Your task to perform on an android device: Search for "alienware aurora" on costco.com, select the first entry, add it to the cart, then select checkout. Image 0: 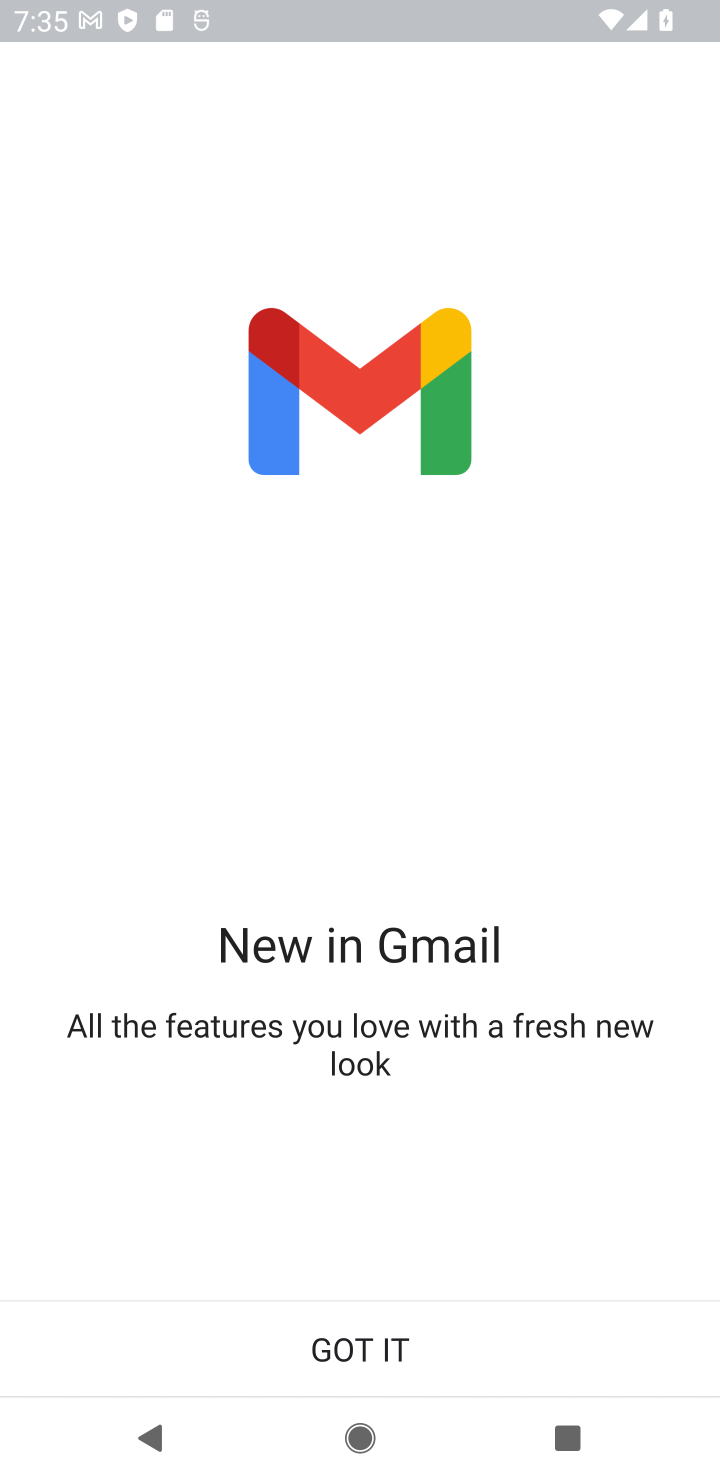
Step 0: press home button
Your task to perform on an android device: Search for "alienware aurora" on costco.com, select the first entry, add it to the cart, then select checkout. Image 1: 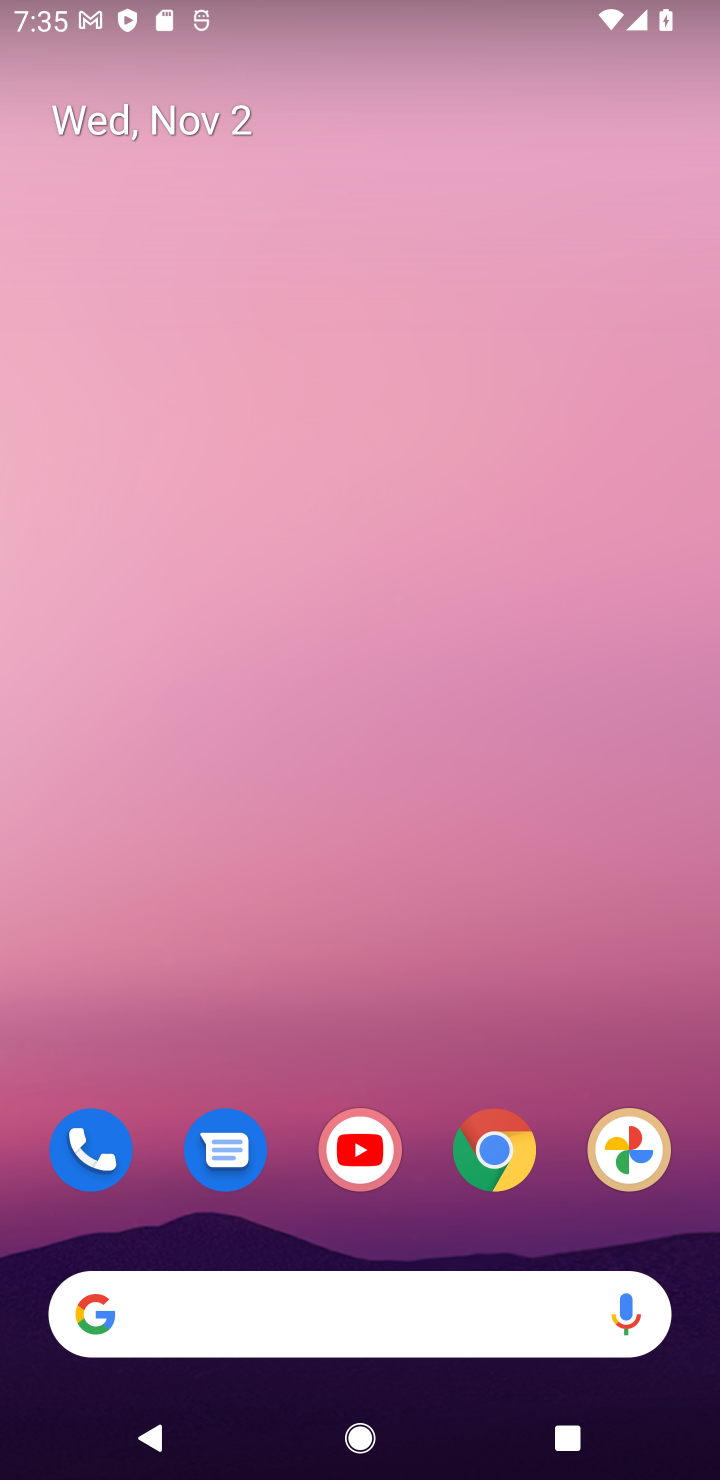
Step 1: click (505, 1147)
Your task to perform on an android device: Search for "alienware aurora" on costco.com, select the first entry, add it to the cart, then select checkout. Image 2: 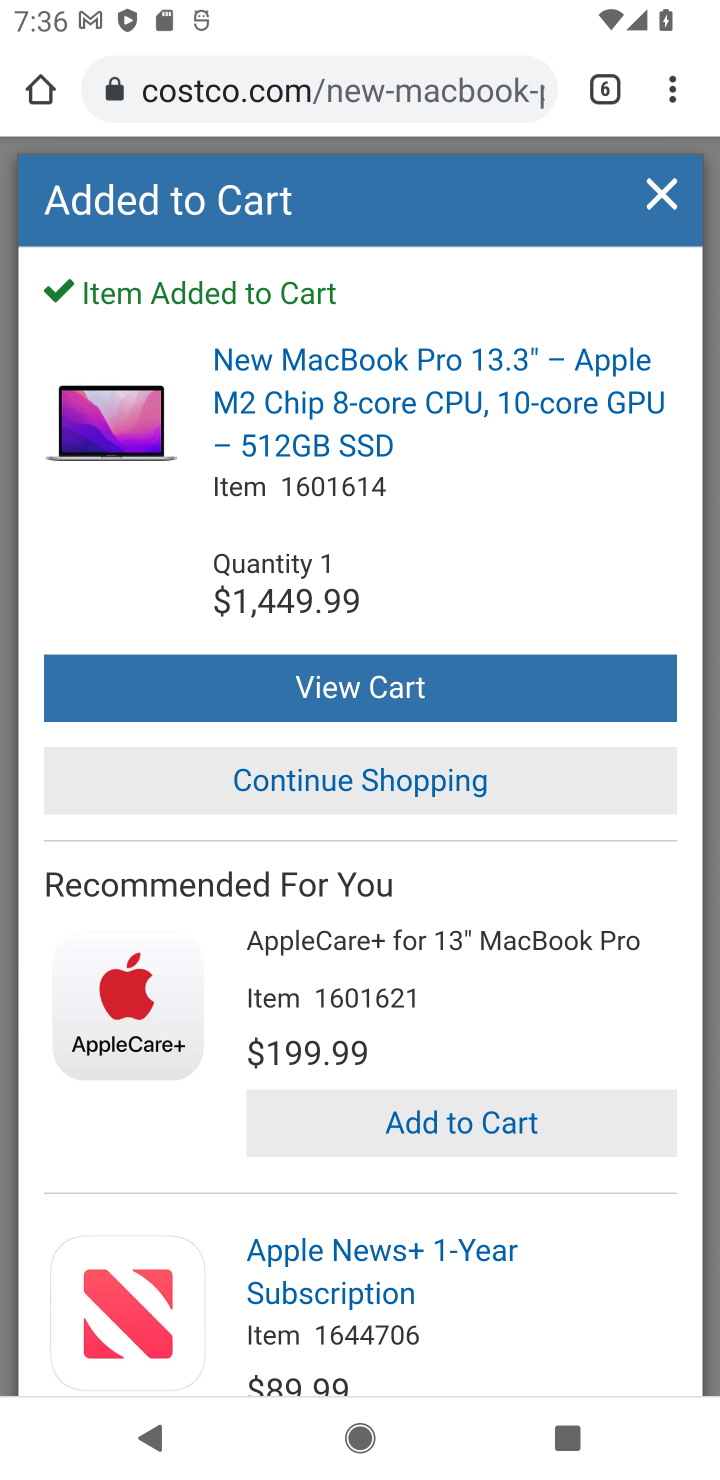
Step 2: click (657, 192)
Your task to perform on an android device: Search for "alienware aurora" on costco.com, select the first entry, add it to the cart, then select checkout. Image 3: 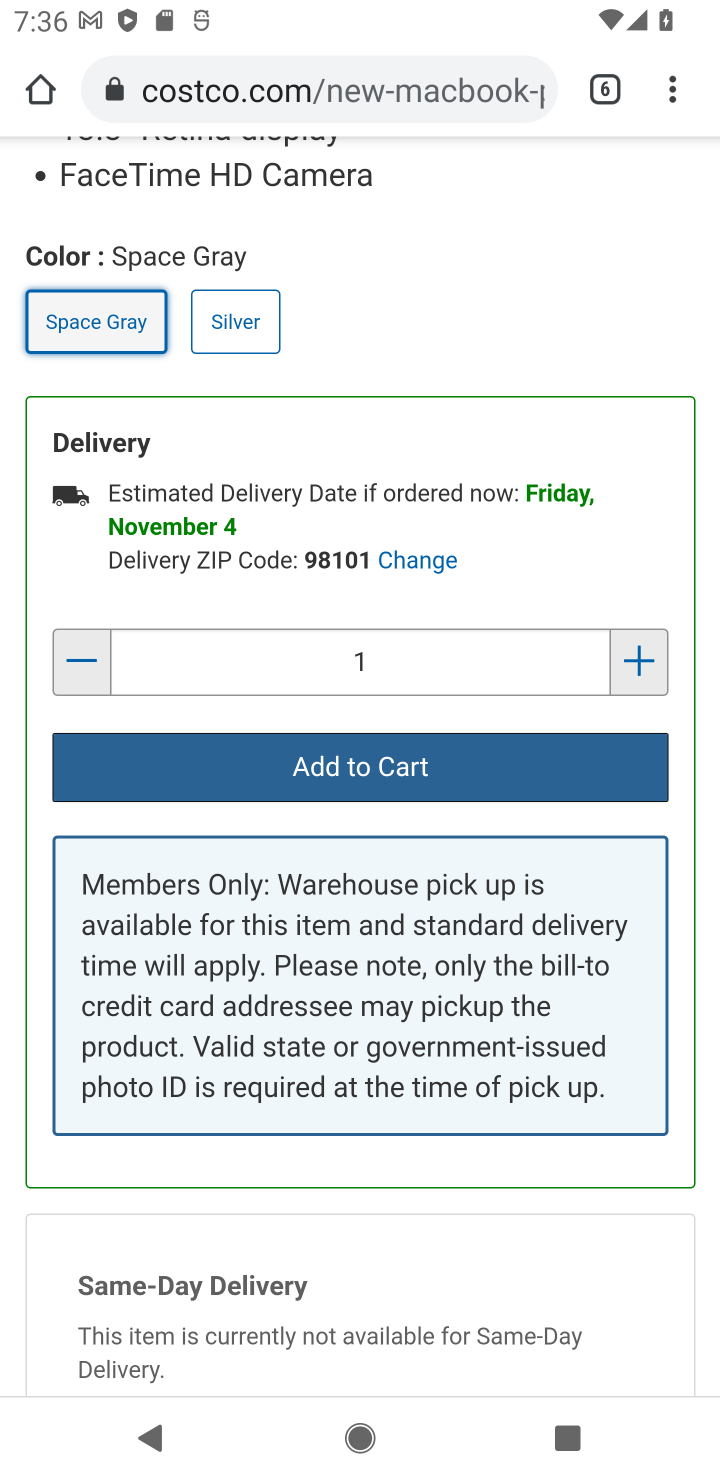
Step 3: drag from (405, 279) to (278, 1373)
Your task to perform on an android device: Search for "alienware aurora" on costco.com, select the first entry, add it to the cart, then select checkout. Image 4: 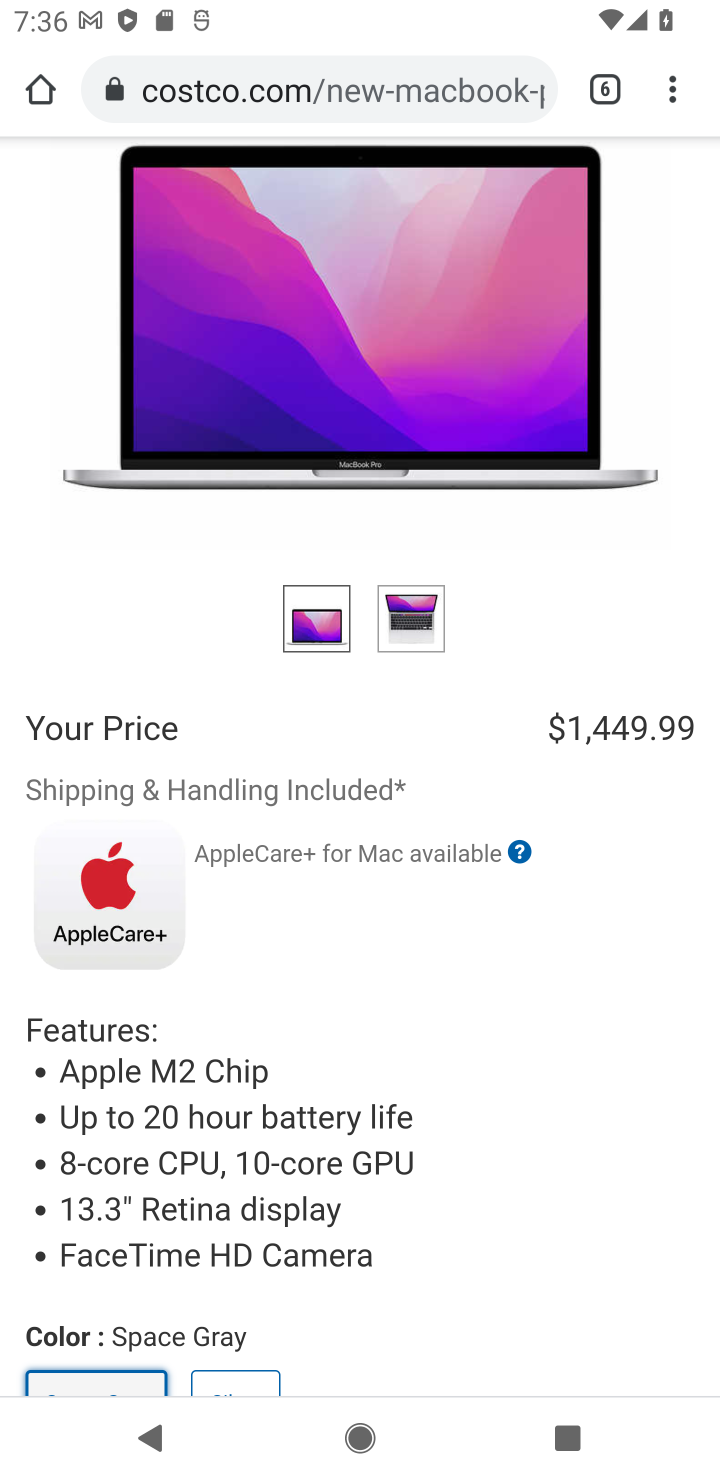
Step 4: drag from (646, 264) to (592, 1473)
Your task to perform on an android device: Search for "alienware aurora" on costco.com, select the first entry, add it to the cart, then select checkout. Image 5: 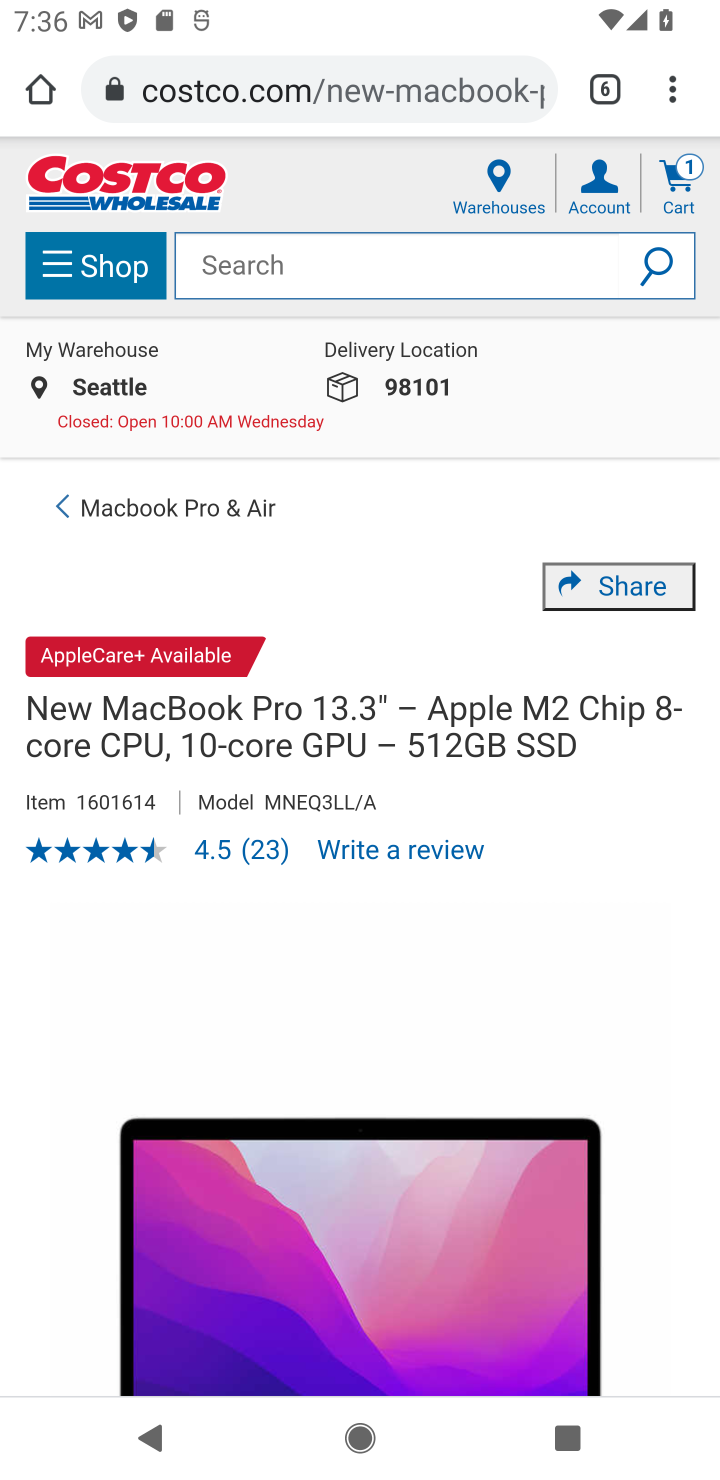
Step 5: click (330, 263)
Your task to perform on an android device: Search for "alienware aurora" on costco.com, select the first entry, add it to the cart, then select checkout. Image 6: 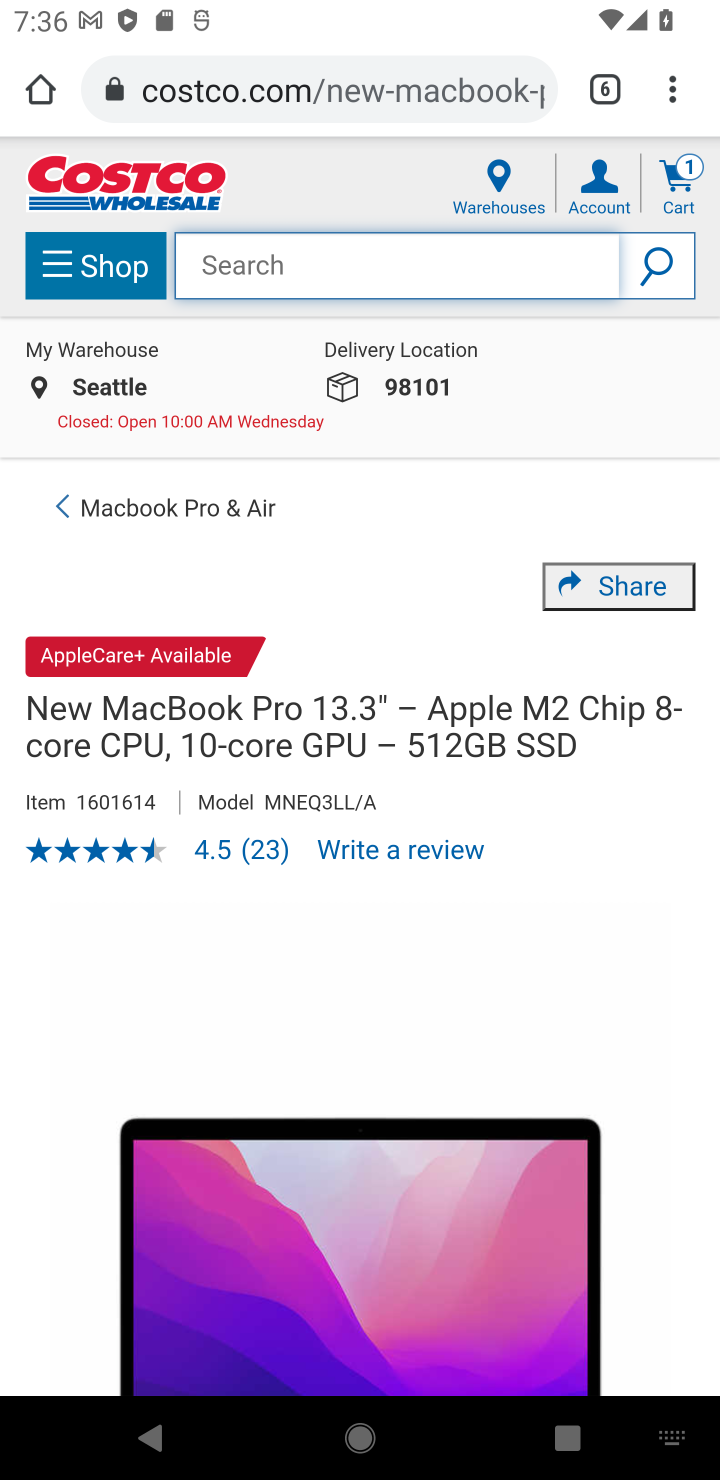
Step 6: type "alienware aurora"
Your task to perform on an android device: Search for "alienware aurora" on costco.com, select the first entry, add it to the cart, then select checkout. Image 7: 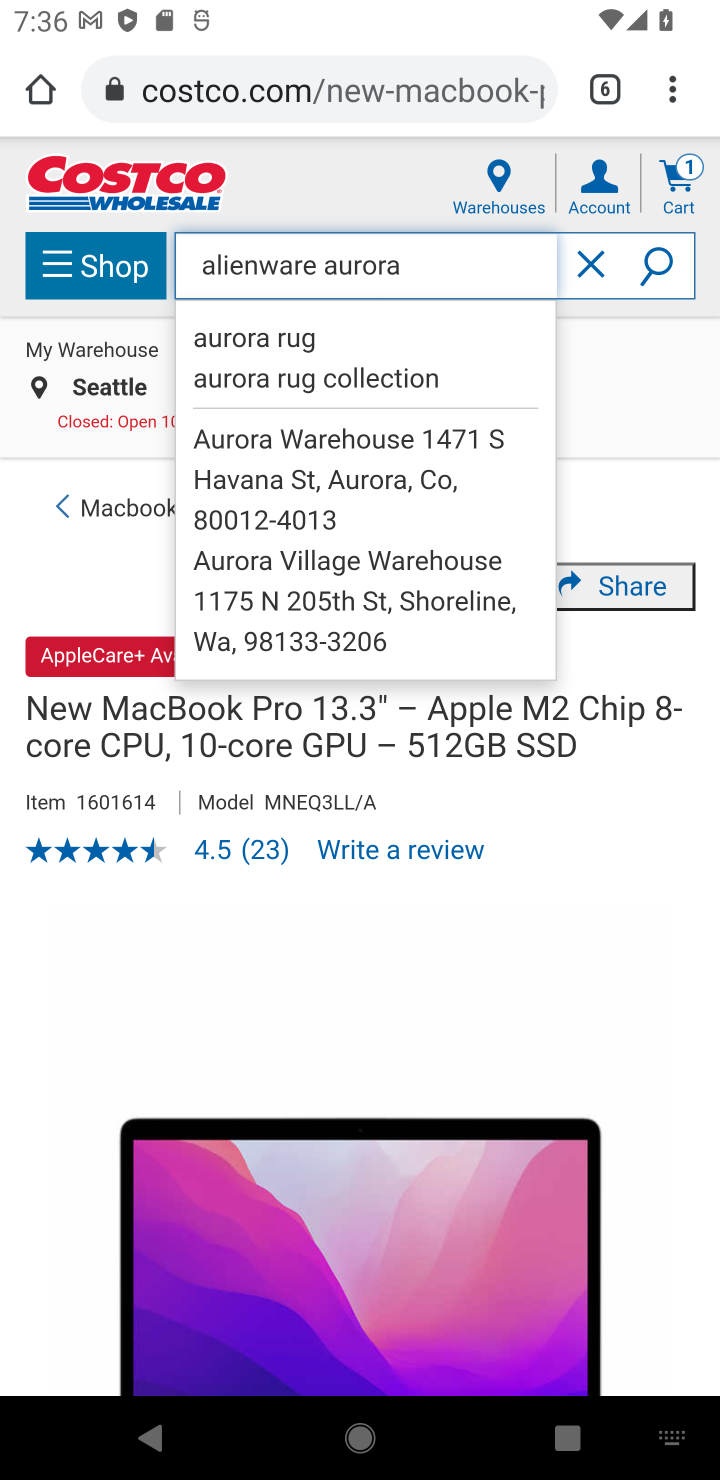
Step 7: click (655, 265)
Your task to perform on an android device: Search for "alienware aurora" on costco.com, select the first entry, add it to the cart, then select checkout. Image 8: 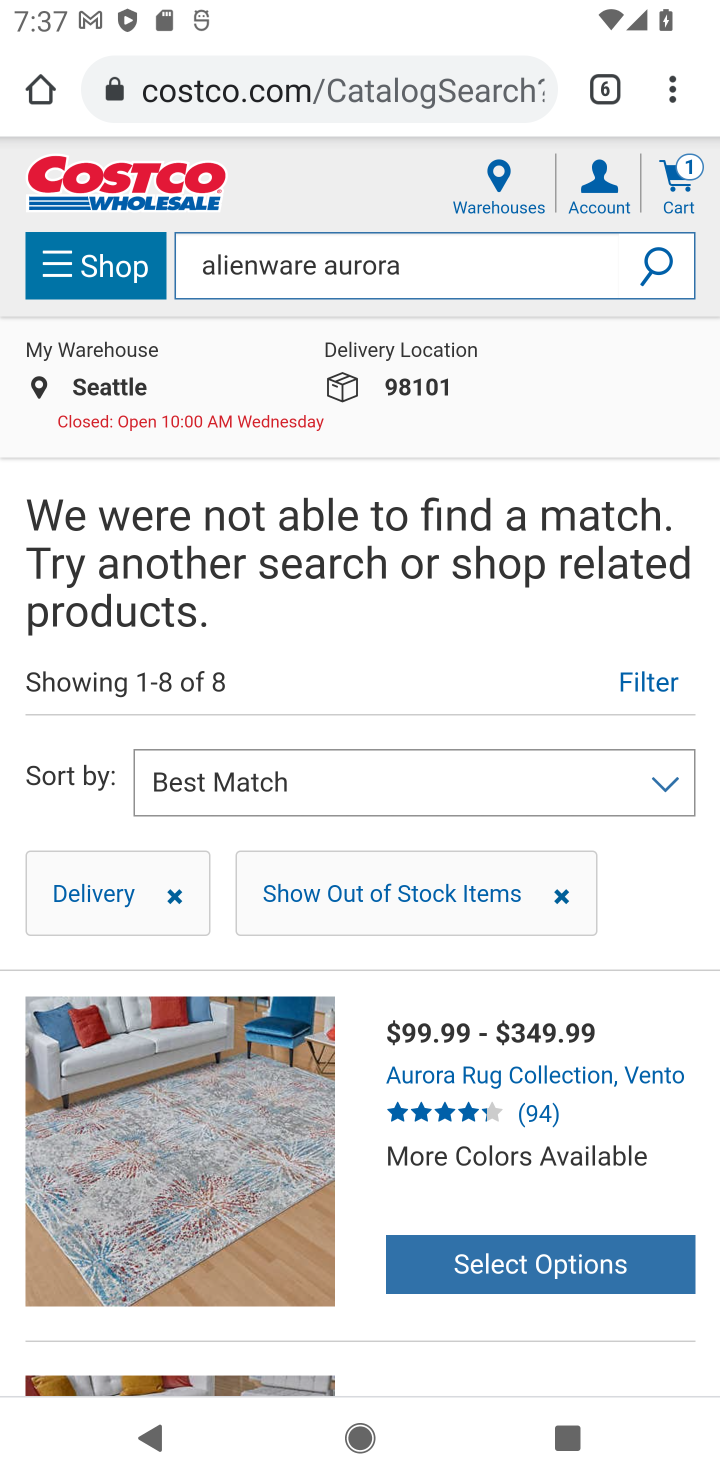
Step 8: click (534, 1164)
Your task to perform on an android device: Search for "alienware aurora" on costco.com, select the first entry, add it to the cart, then select checkout. Image 9: 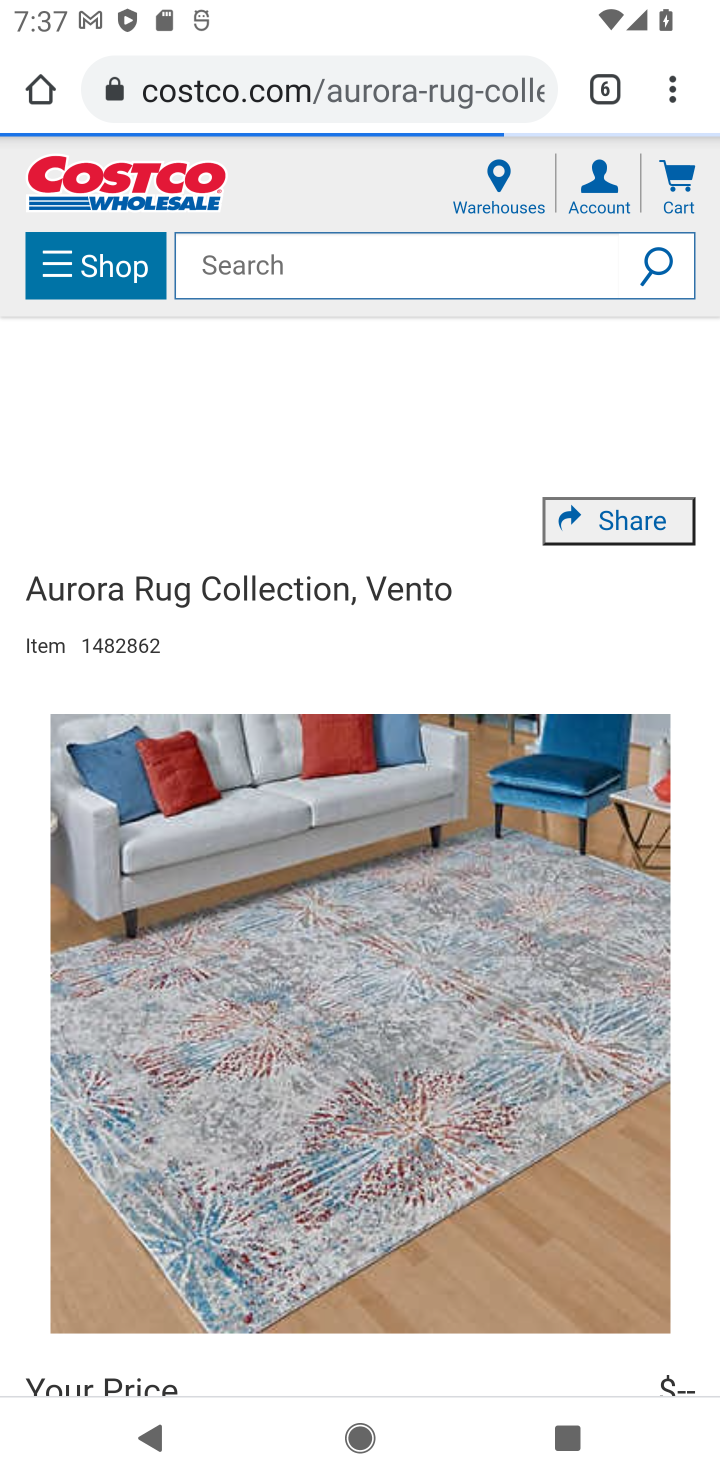
Step 9: click (537, 742)
Your task to perform on an android device: Search for "alienware aurora" on costco.com, select the first entry, add it to the cart, then select checkout. Image 10: 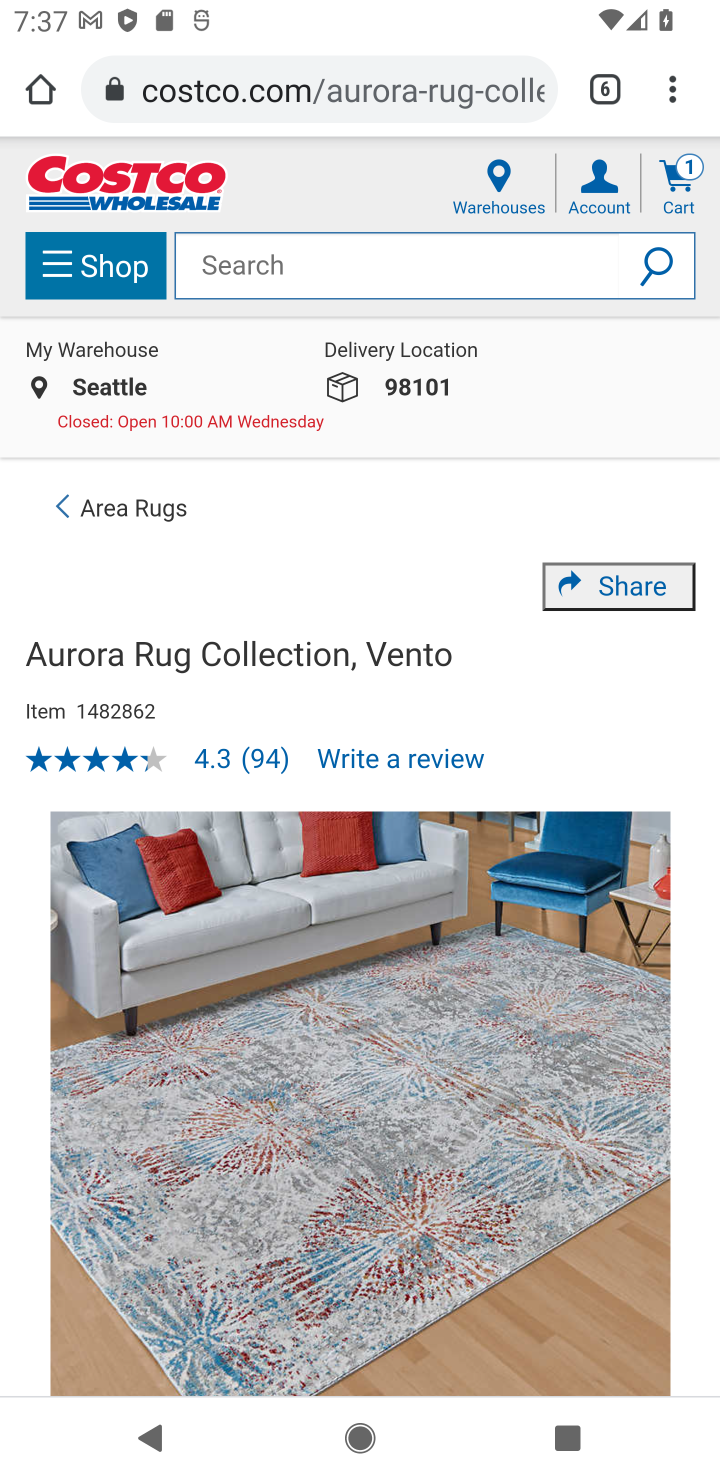
Step 10: drag from (280, 1426) to (253, 169)
Your task to perform on an android device: Search for "alienware aurora" on costco.com, select the first entry, add it to the cart, then select checkout. Image 11: 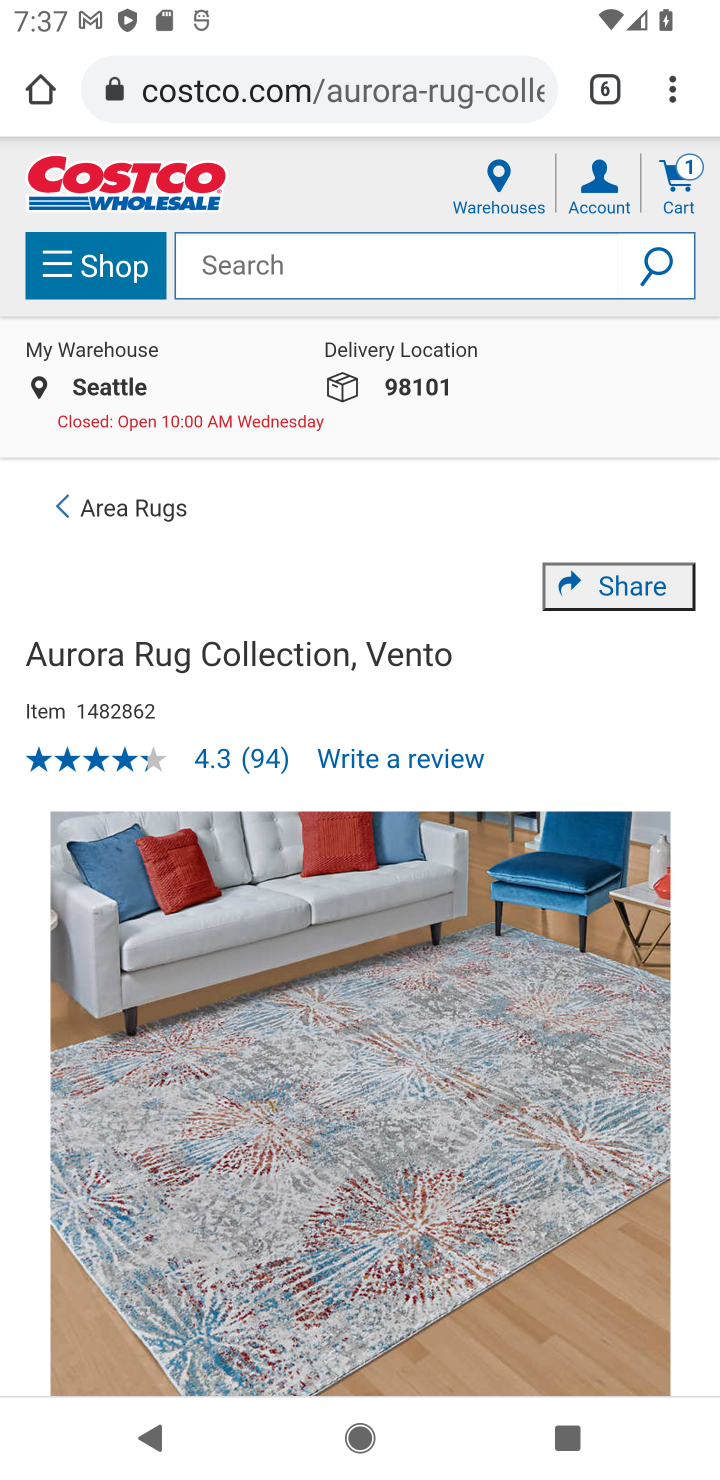
Step 11: drag from (337, 588) to (364, 391)
Your task to perform on an android device: Search for "alienware aurora" on costco.com, select the first entry, add it to the cart, then select checkout. Image 12: 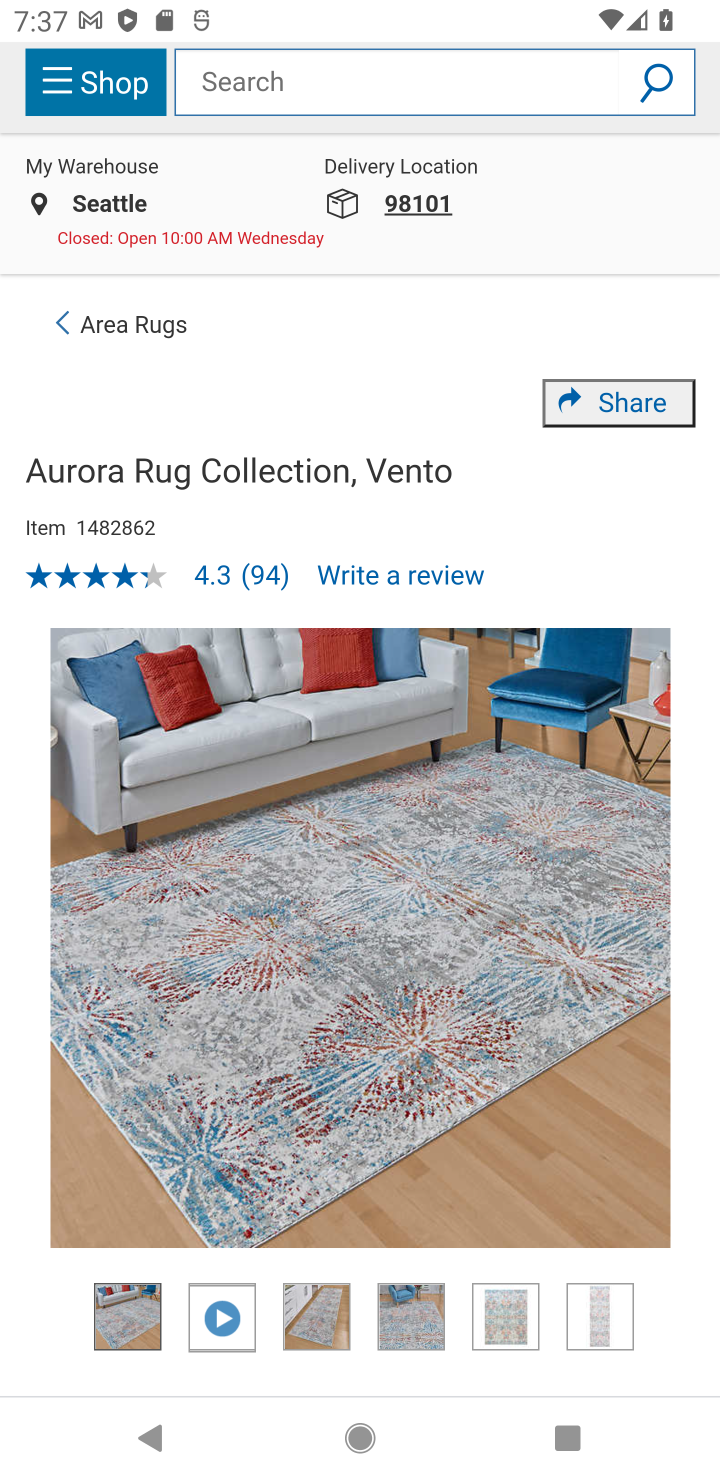
Step 12: drag from (365, 1181) to (410, 420)
Your task to perform on an android device: Search for "alienware aurora" on costco.com, select the first entry, add it to the cart, then select checkout. Image 13: 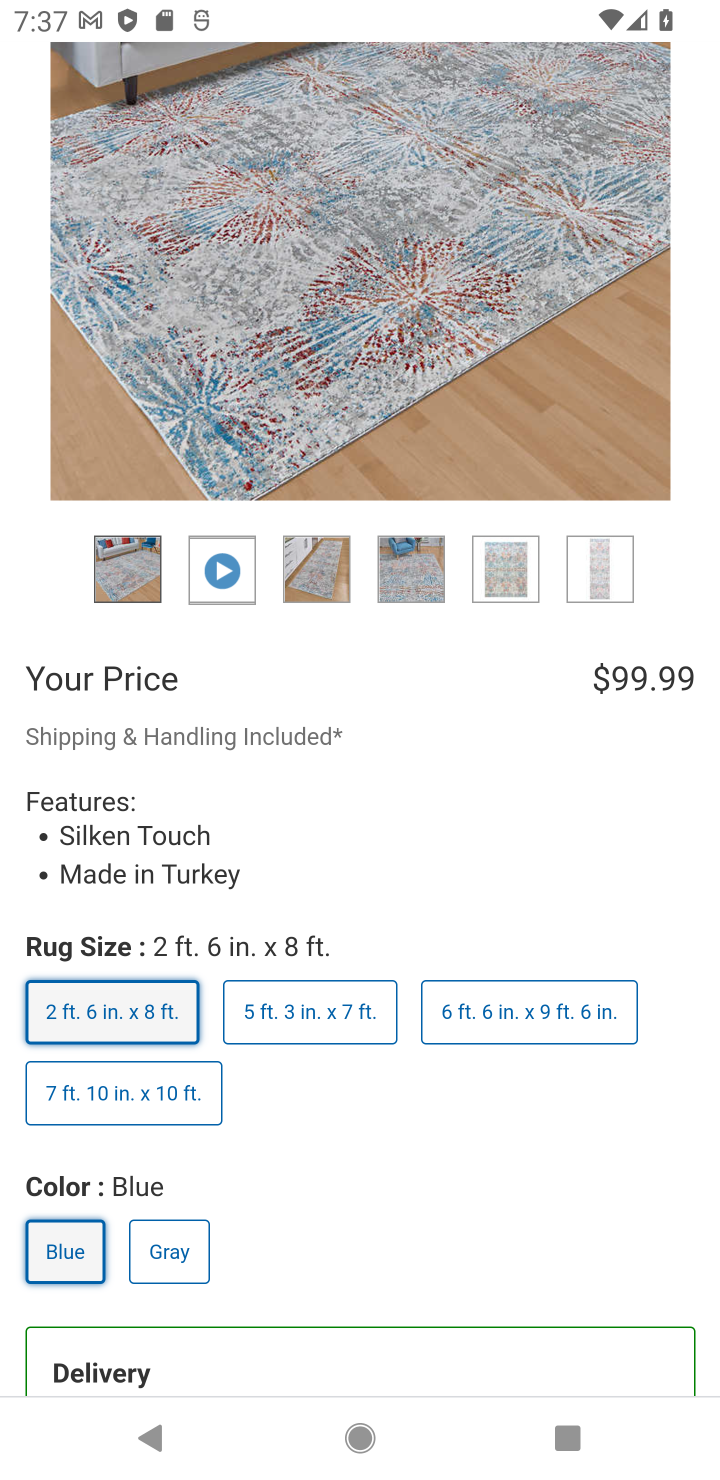
Step 13: drag from (325, 1151) to (234, 31)
Your task to perform on an android device: Search for "alienware aurora" on costco.com, select the first entry, add it to the cart, then select checkout. Image 14: 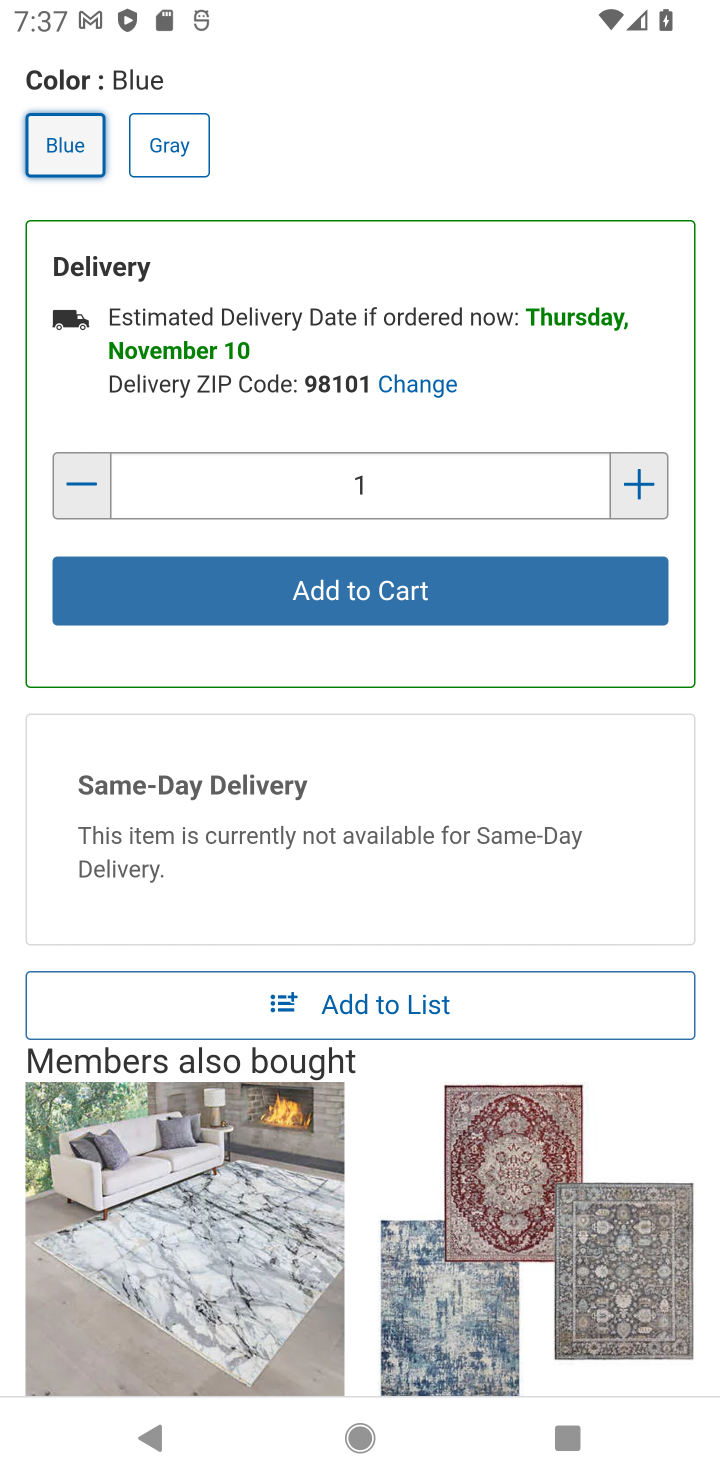
Step 14: click (422, 603)
Your task to perform on an android device: Search for "alienware aurora" on costco.com, select the first entry, add it to the cart, then select checkout. Image 15: 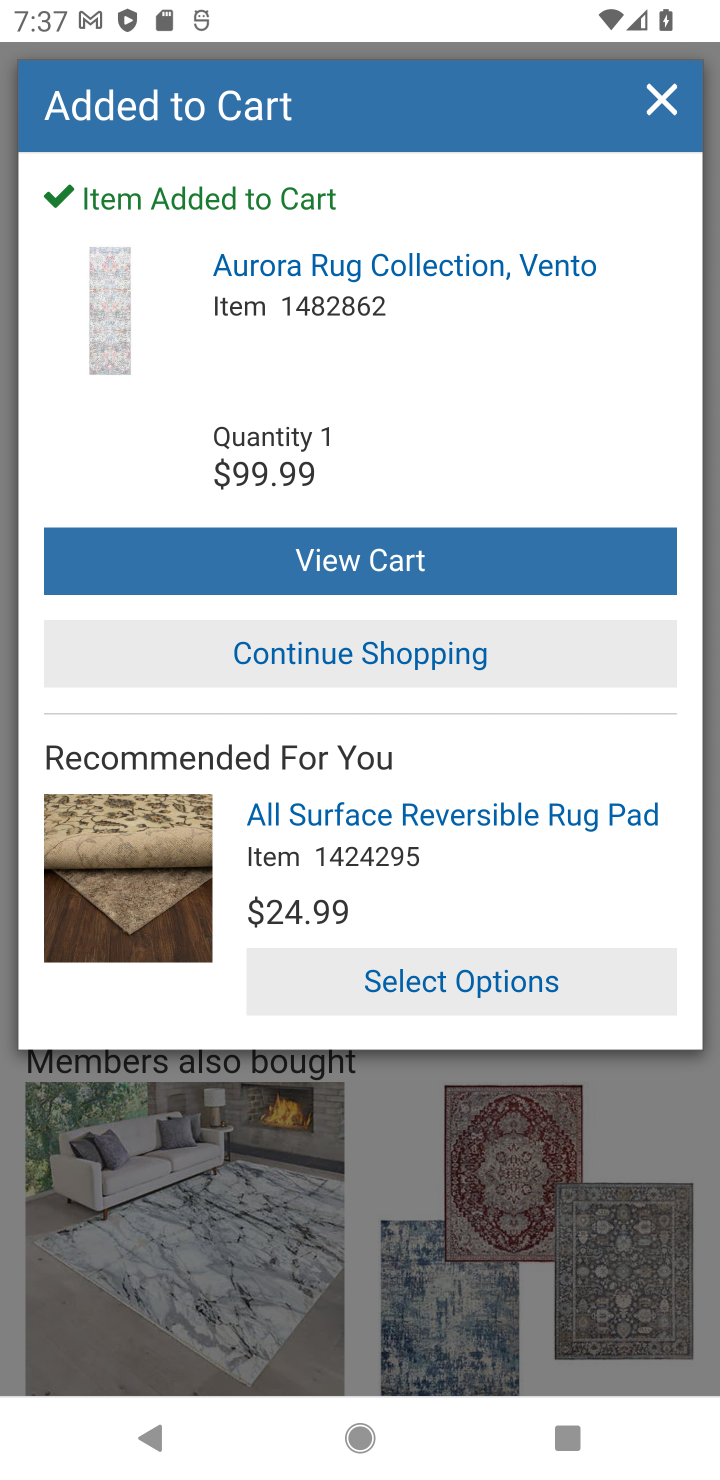
Step 15: click (383, 531)
Your task to perform on an android device: Search for "alienware aurora" on costco.com, select the first entry, add it to the cart, then select checkout. Image 16: 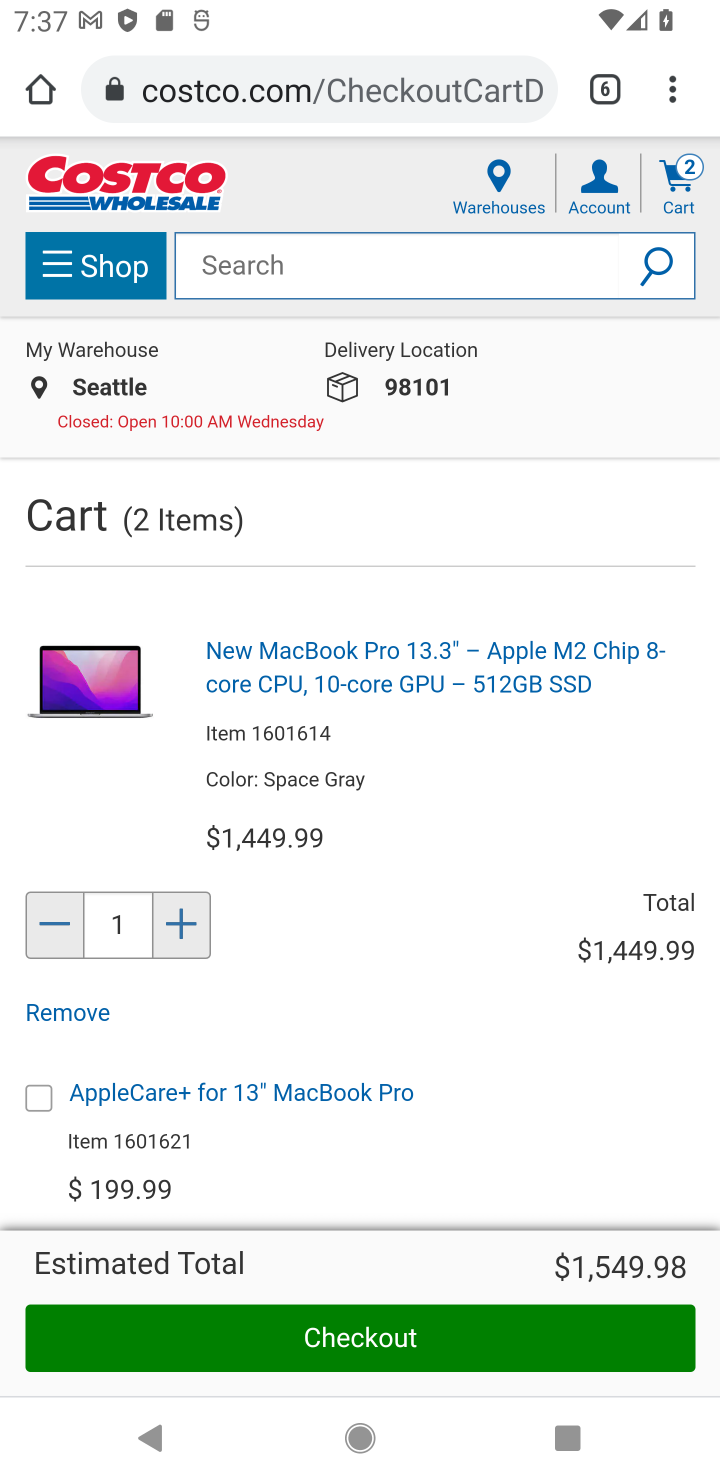
Step 16: click (428, 1341)
Your task to perform on an android device: Search for "alienware aurora" on costco.com, select the first entry, add it to the cart, then select checkout. Image 17: 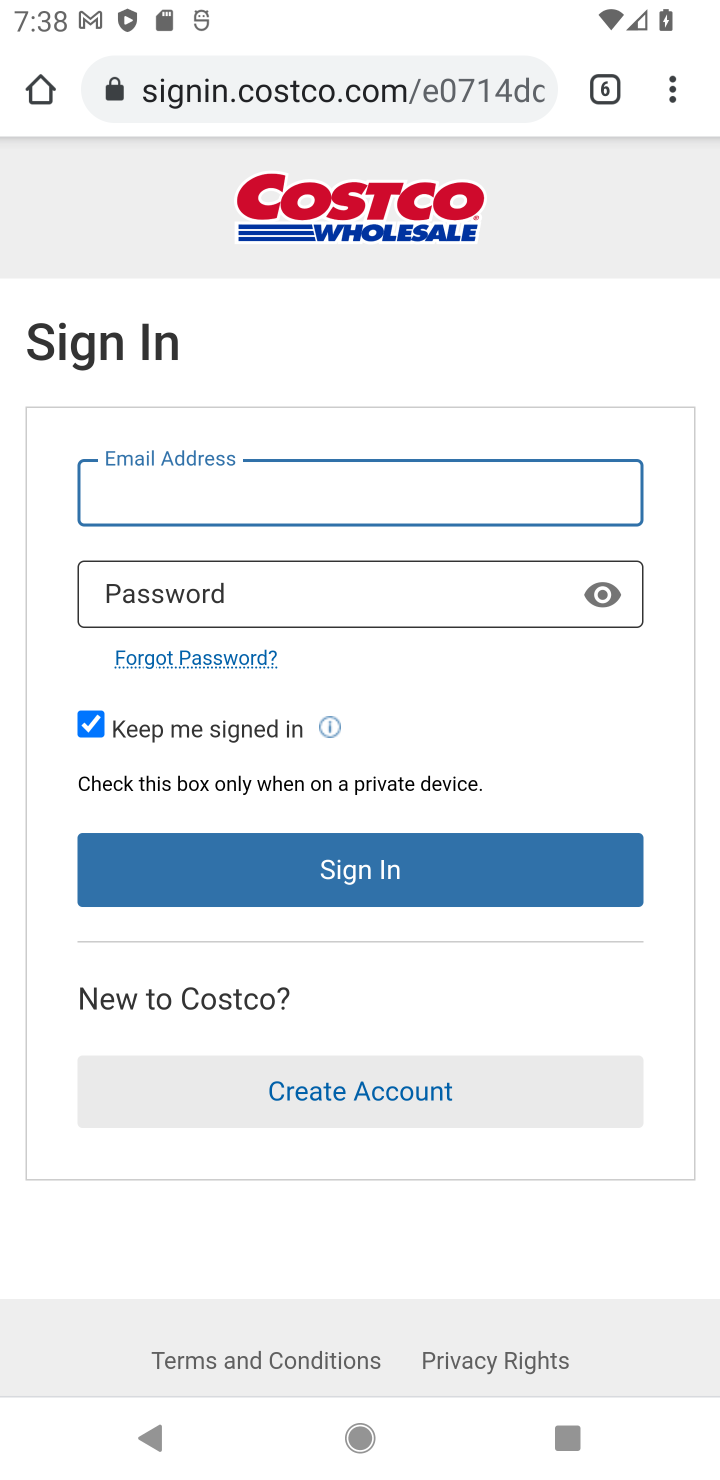
Step 17: task complete